Your task to perform on an android device: turn off priority inbox in the gmail app Image 0: 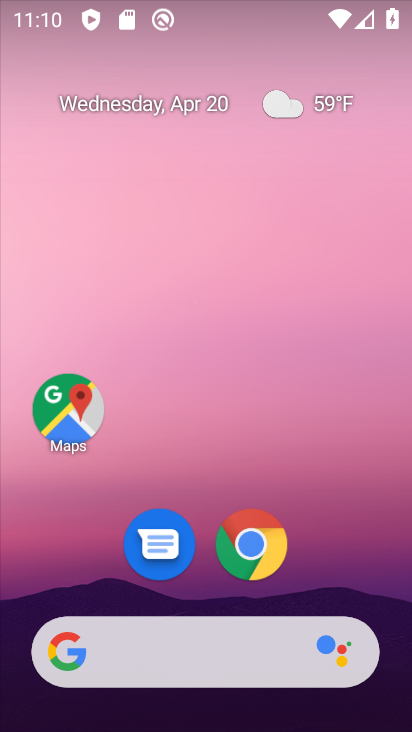
Step 0: drag from (197, 600) to (275, 239)
Your task to perform on an android device: turn off priority inbox in the gmail app Image 1: 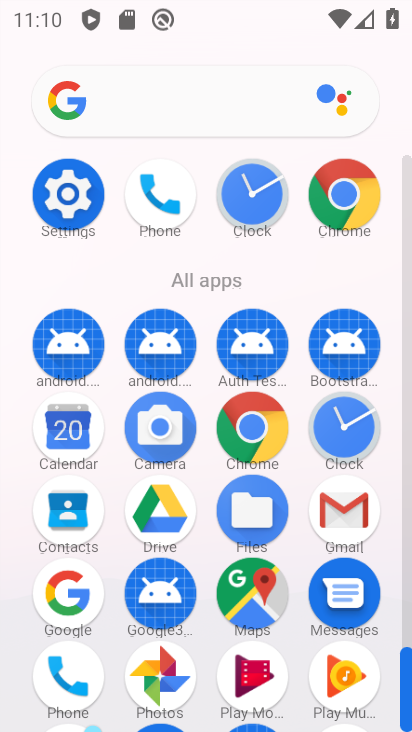
Step 1: click (346, 522)
Your task to perform on an android device: turn off priority inbox in the gmail app Image 2: 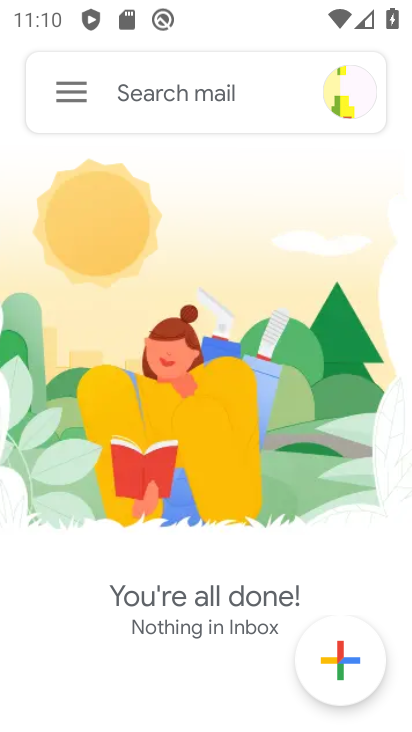
Step 2: click (69, 94)
Your task to perform on an android device: turn off priority inbox in the gmail app Image 3: 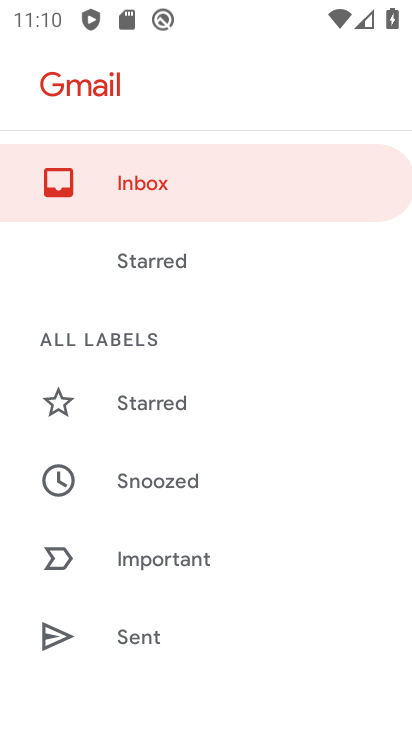
Step 3: drag from (262, 574) to (224, 104)
Your task to perform on an android device: turn off priority inbox in the gmail app Image 4: 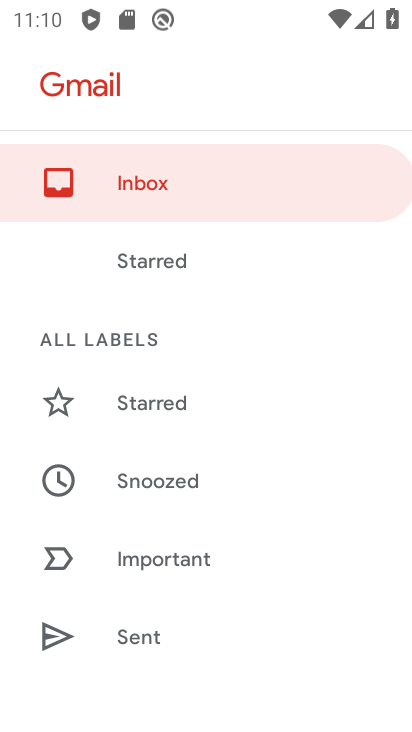
Step 4: drag from (186, 586) to (194, 76)
Your task to perform on an android device: turn off priority inbox in the gmail app Image 5: 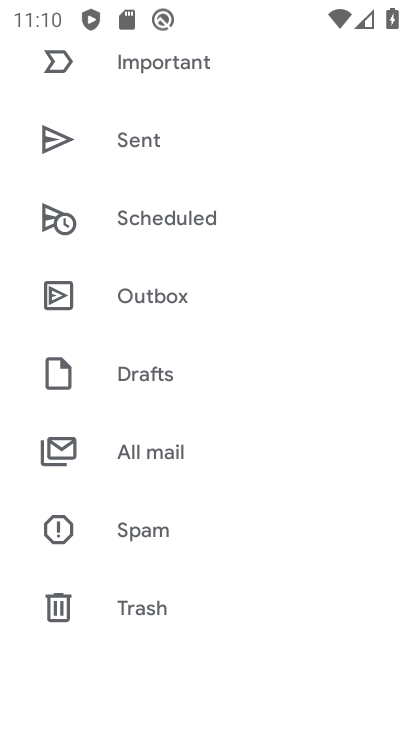
Step 5: drag from (197, 588) to (225, 123)
Your task to perform on an android device: turn off priority inbox in the gmail app Image 6: 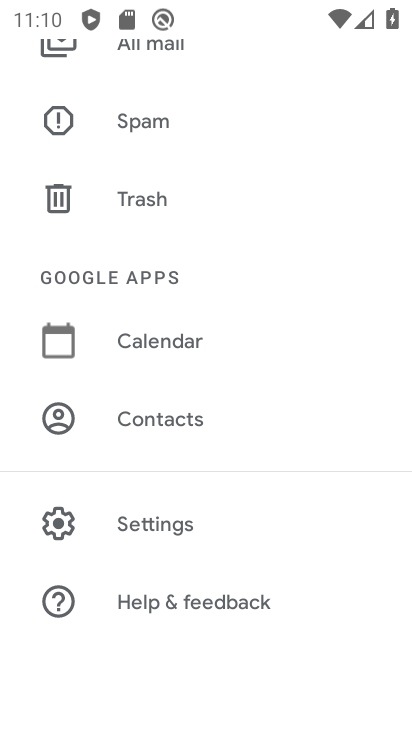
Step 6: click (167, 519)
Your task to perform on an android device: turn off priority inbox in the gmail app Image 7: 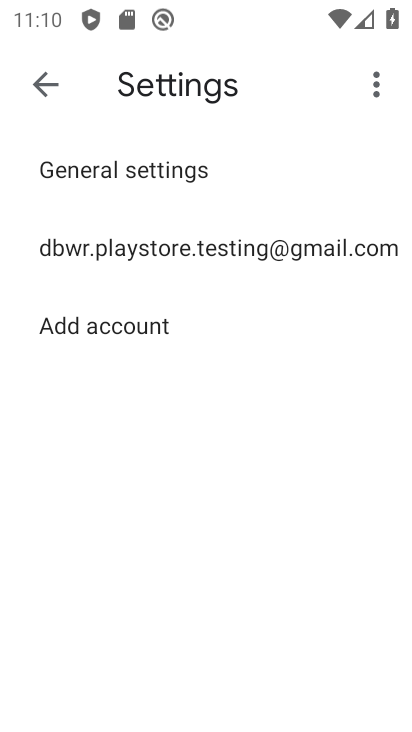
Step 7: click (285, 253)
Your task to perform on an android device: turn off priority inbox in the gmail app Image 8: 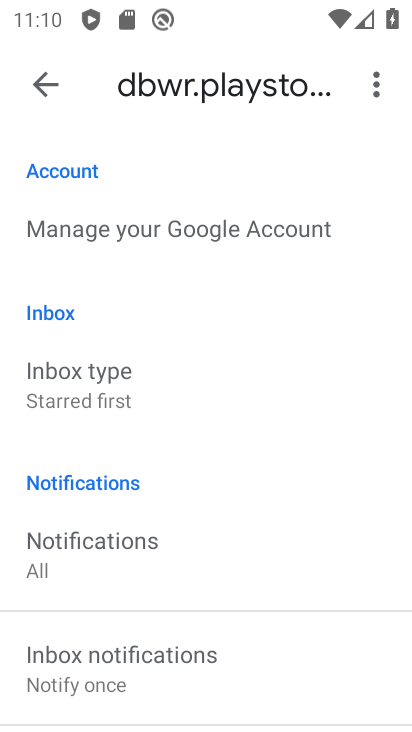
Step 8: click (216, 393)
Your task to perform on an android device: turn off priority inbox in the gmail app Image 9: 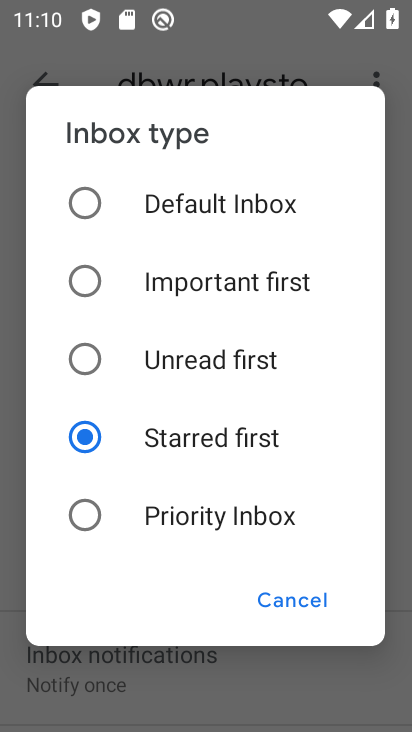
Step 9: click (135, 189)
Your task to perform on an android device: turn off priority inbox in the gmail app Image 10: 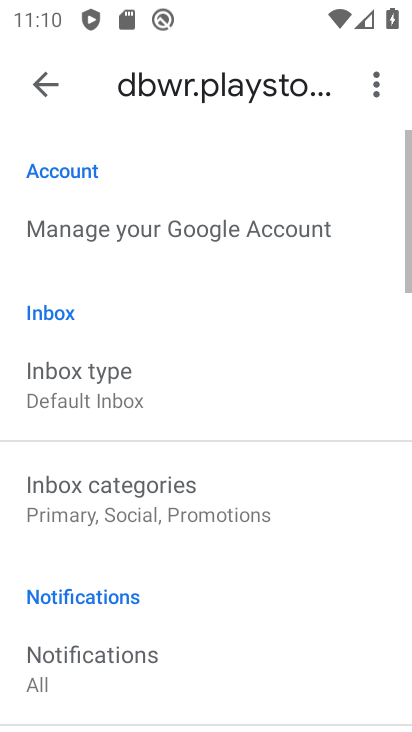
Step 10: task complete